Your task to perform on an android device: Open Google Chrome Image 0: 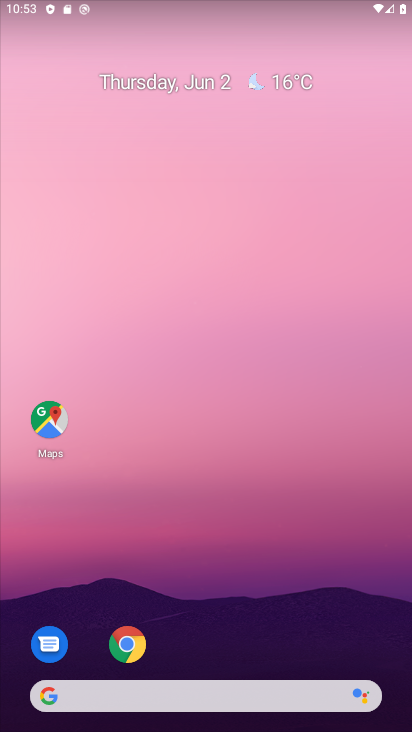
Step 0: click (121, 647)
Your task to perform on an android device: Open Google Chrome Image 1: 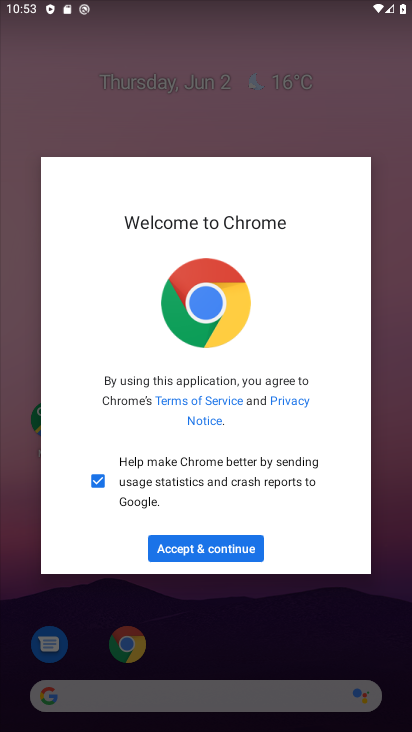
Step 1: click (224, 554)
Your task to perform on an android device: Open Google Chrome Image 2: 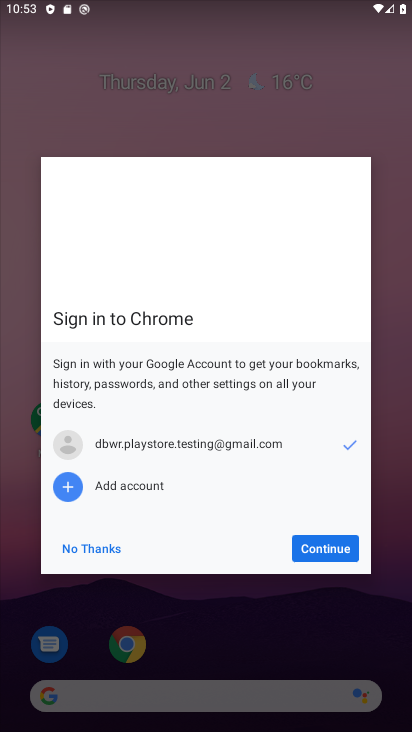
Step 2: click (335, 547)
Your task to perform on an android device: Open Google Chrome Image 3: 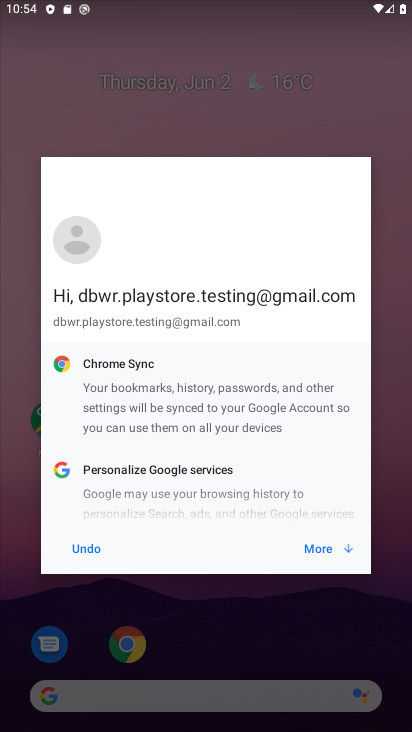
Step 3: click (328, 540)
Your task to perform on an android device: Open Google Chrome Image 4: 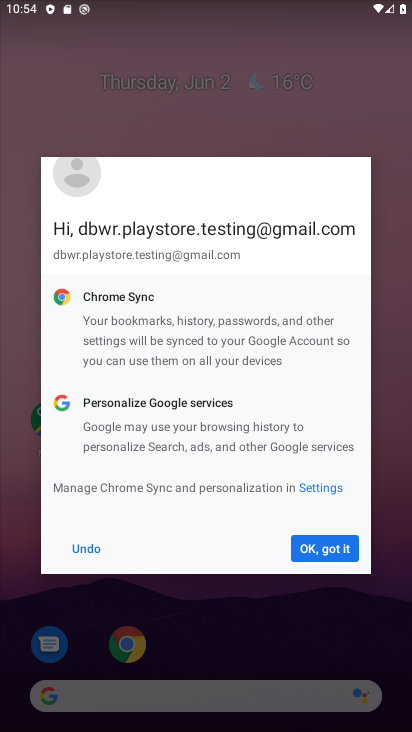
Step 4: click (330, 545)
Your task to perform on an android device: Open Google Chrome Image 5: 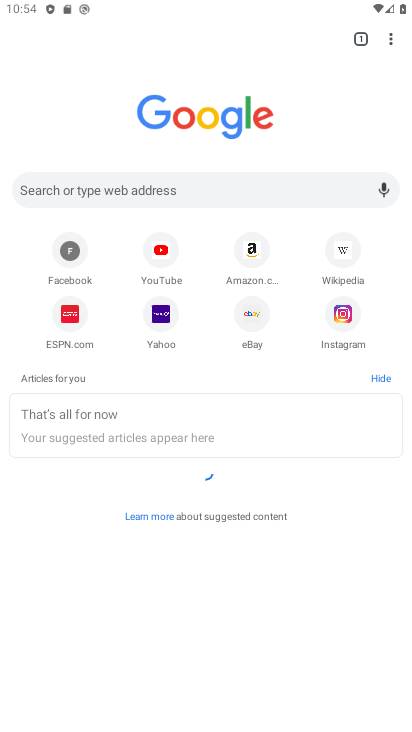
Step 5: task complete